Your task to perform on an android device: stop showing notifications on the lock screen Image 0: 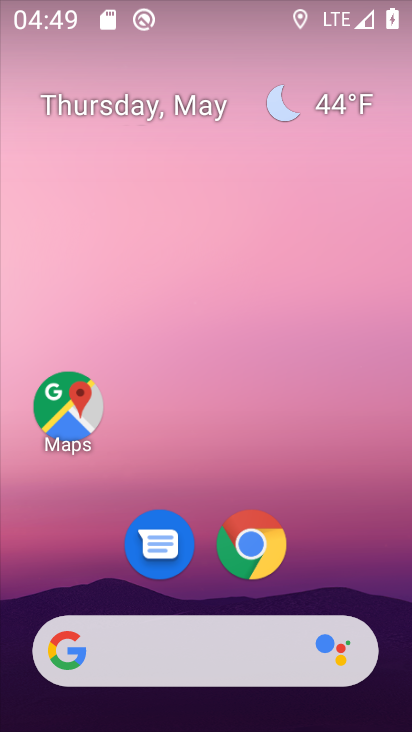
Step 0: drag from (306, 584) to (375, 70)
Your task to perform on an android device: stop showing notifications on the lock screen Image 1: 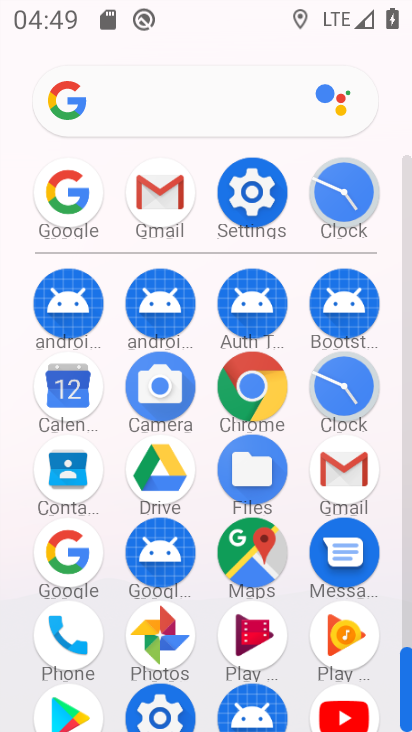
Step 1: click (242, 204)
Your task to perform on an android device: stop showing notifications on the lock screen Image 2: 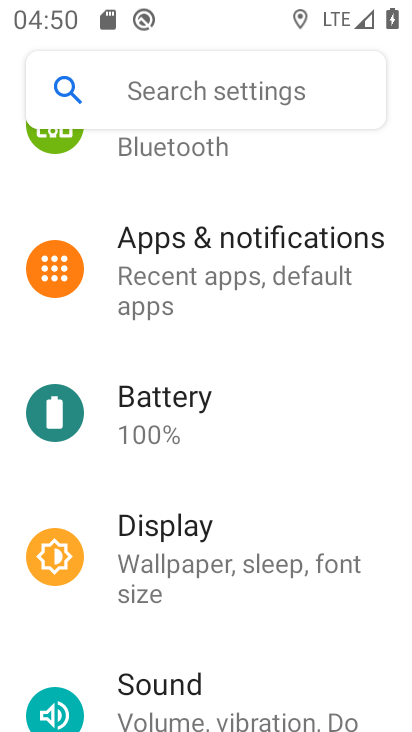
Step 2: click (257, 252)
Your task to perform on an android device: stop showing notifications on the lock screen Image 3: 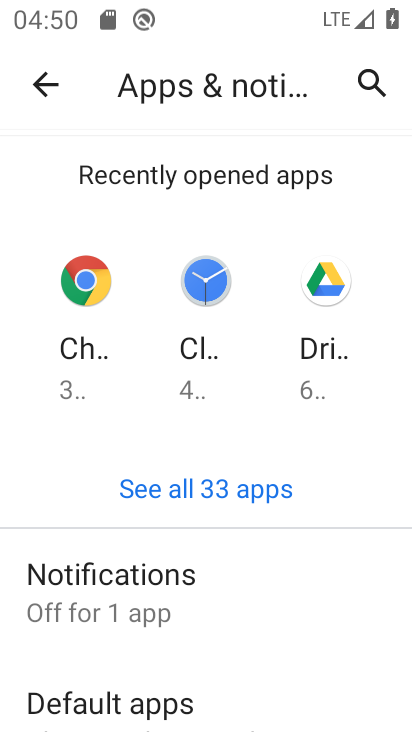
Step 3: click (201, 576)
Your task to perform on an android device: stop showing notifications on the lock screen Image 4: 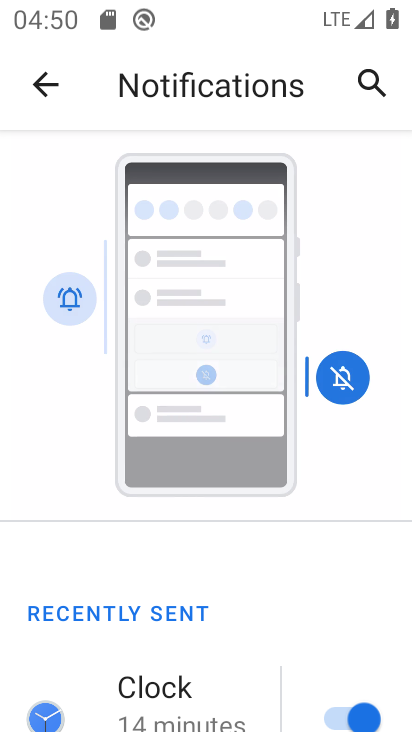
Step 4: drag from (165, 562) to (281, 213)
Your task to perform on an android device: stop showing notifications on the lock screen Image 5: 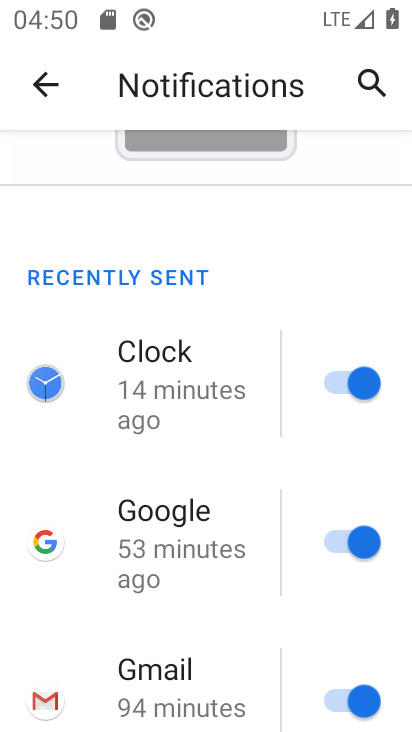
Step 5: drag from (175, 590) to (252, 267)
Your task to perform on an android device: stop showing notifications on the lock screen Image 6: 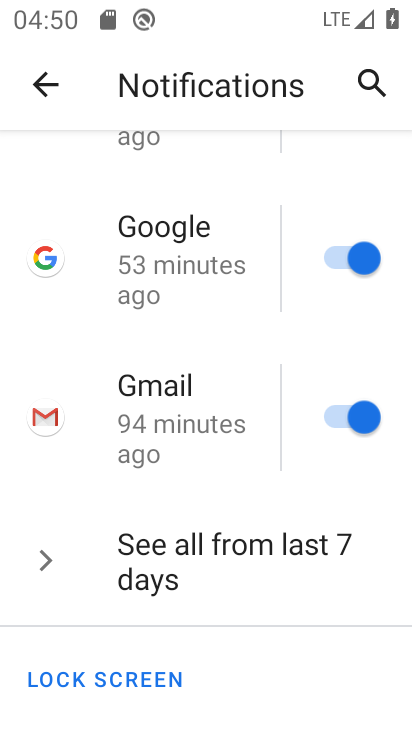
Step 6: drag from (232, 651) to (282, 332)
Your task to perform on an android device: stop showing notifications on the lock screen Image 7: 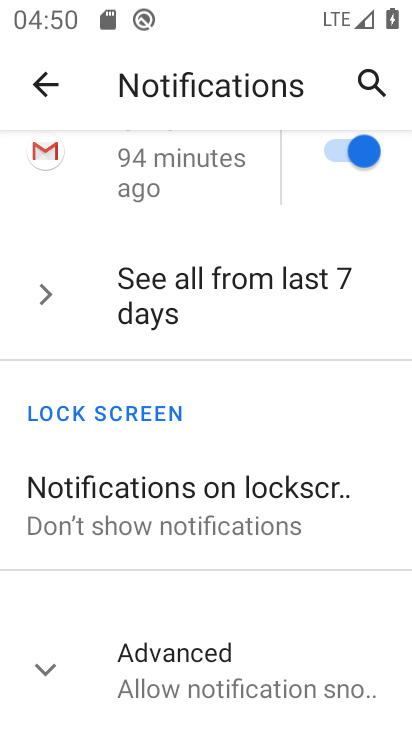
Step 7: click (237, 480)
Your task to perform on an android device: stop showing notifications on the lock screen Image 8: 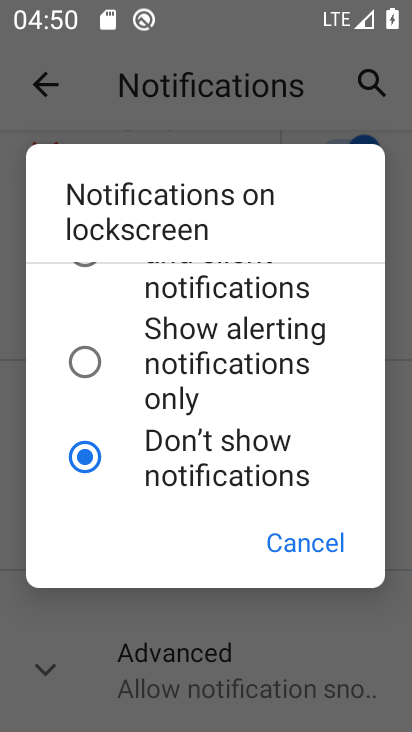
Step 8: click (184, 453)
Your task to perform on an android device: stop showing notifications on the lock screen Image 9: 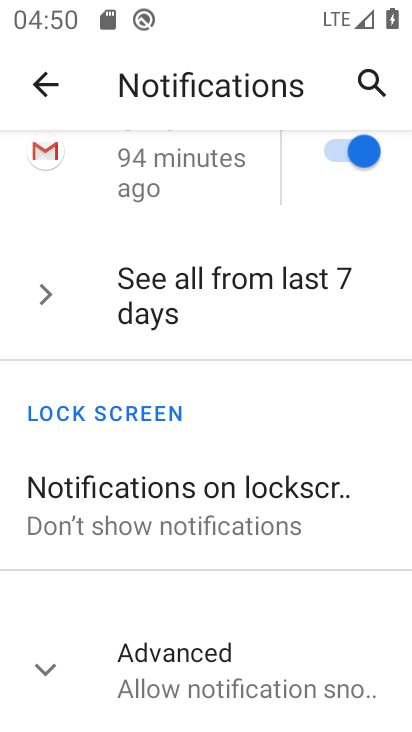
Step 9: task complete